Your task to perform on an android device: toggle javascript in the chrome app Image 0: 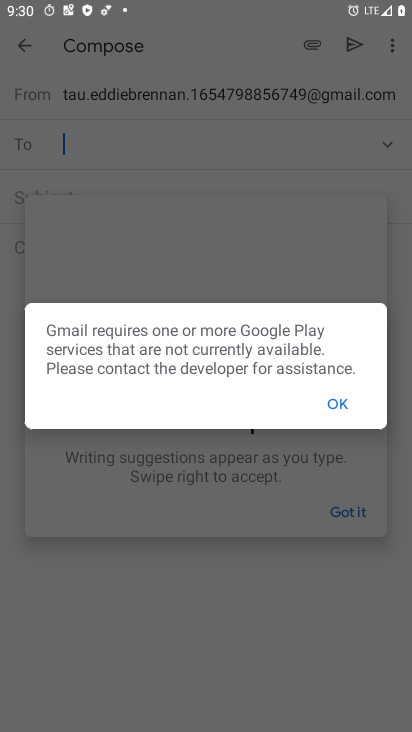
Step 0: press home button
Your task to perform on an android device: toggle javascript in the chrome app Image 1: 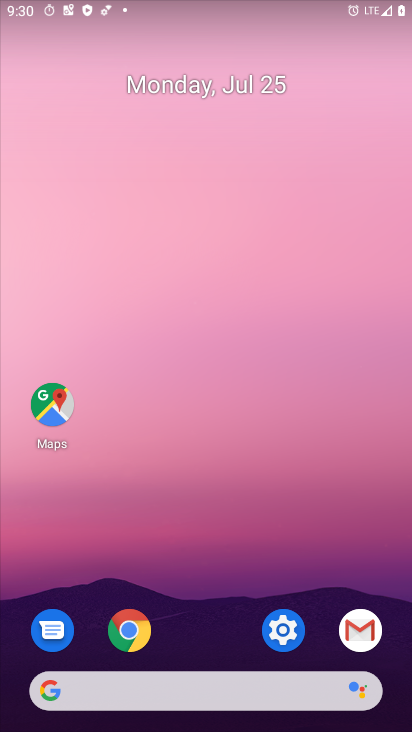
Step 1: click (137, 628)
Your task to perform on an android device: toggle javascript in the chrome app Image 2: 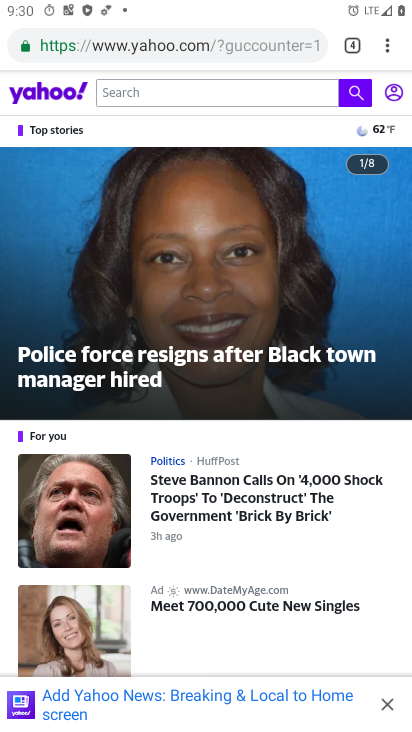
Step 2: click (383, 46)
Your task to perform on an android device: toggle javascript in the chrome app Image 3: 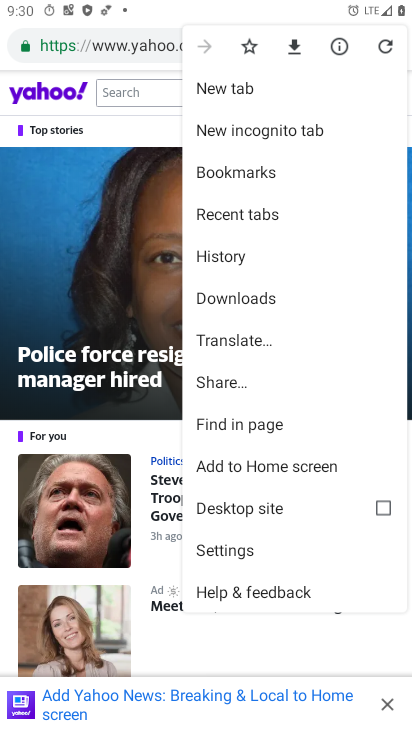
Step 3: click (247, 549)
Your task to perform on an android device: toggle javascript in the chrome app Image 4: 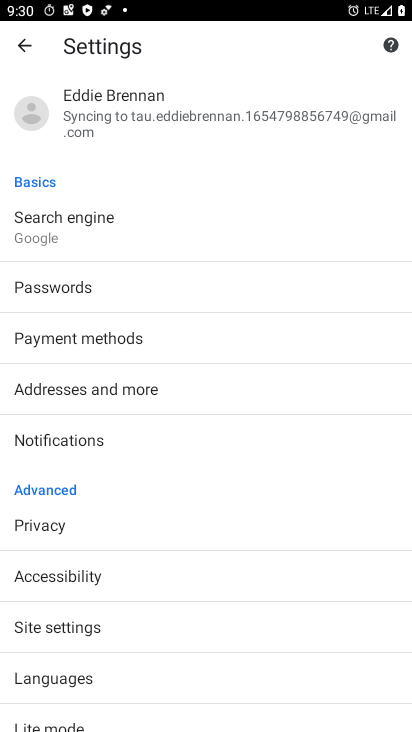
Step 4: click (74, 626)
Your task to perform on an android device: toggle javascript in the chrome app Image 5: 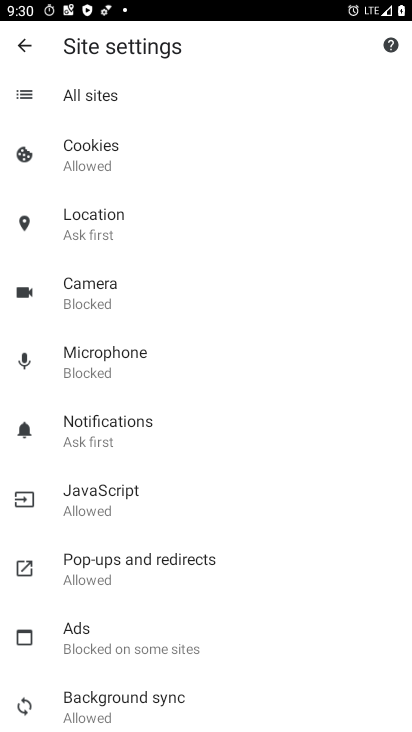
Step 5: click (105, 511)
Your task to perform on an android device: toggle javascript in the chrome app Image 6: 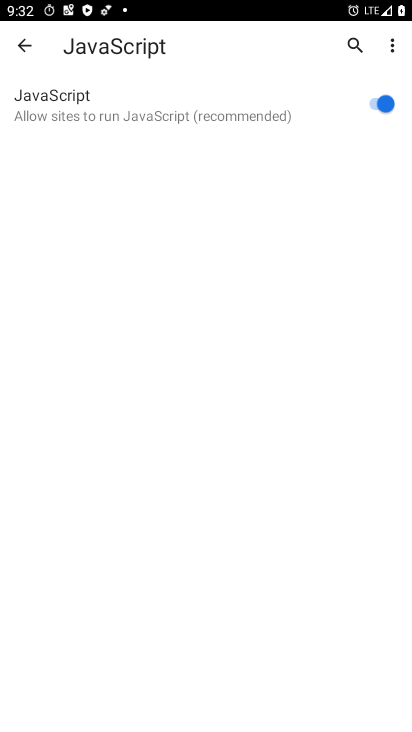
Step 6: task complete